Your task to perform on an android device: Open Google Chrome and open the bookmarks view Image 0: 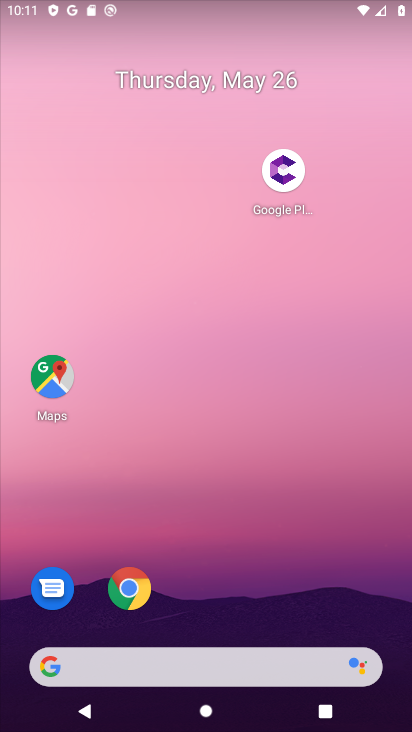
Step 0: drag from (255, 682) to (163, 76)
Your task to perform on an android device: Open Google Chrome and open the bookmarks view Image 1: 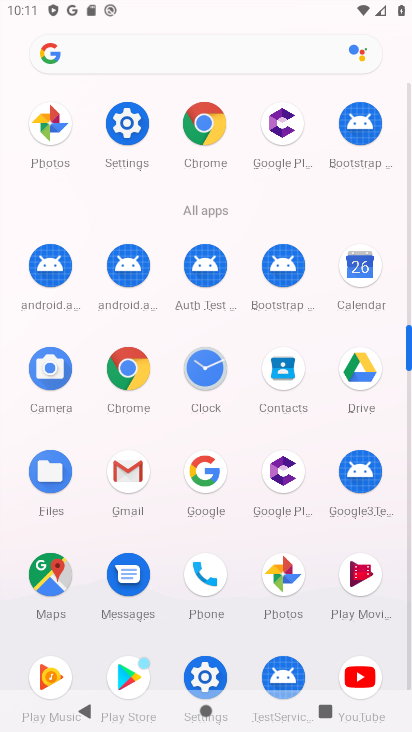
Step 1: click (215, 130)
Your task to perform on an android device: Open Google Chrome and open the bookmarks view Image 2: 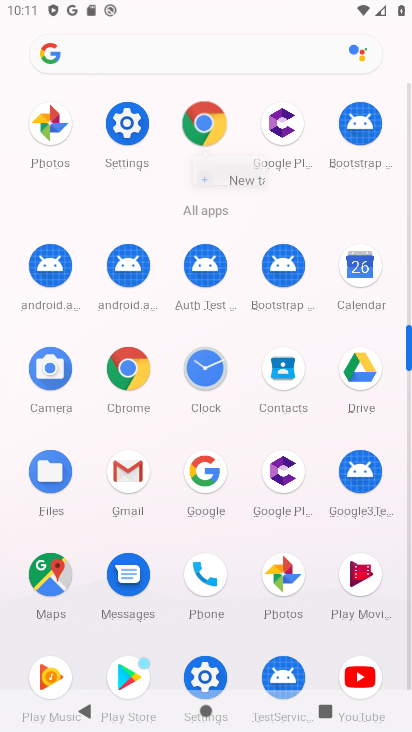
Step 2: click (202, 120)
Your task to perform on an android device: Open Google Chrome and open the bookmarks view Image 3: 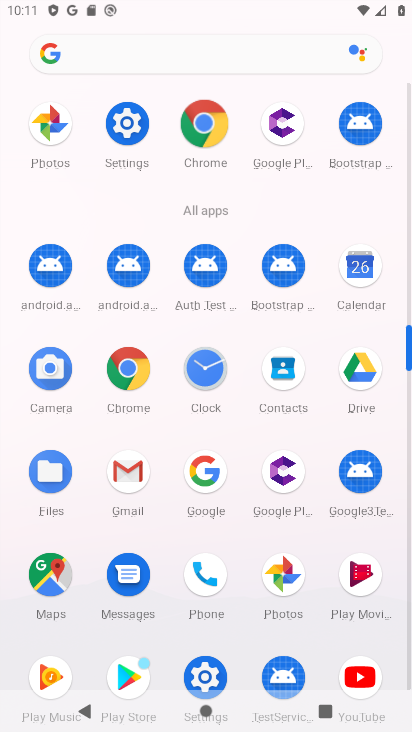
Step 3: click (210, 118)
Your task to perform on an android device: Open Google Chrome and open the bookmarks view Image 4: 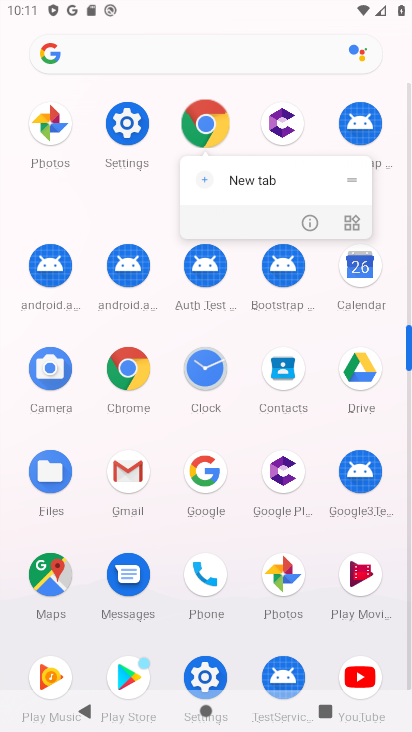
Step 4: click (210, 118)
Your task to perform on an android device: Open Google Chrome and open the bookmarks view Image 5: 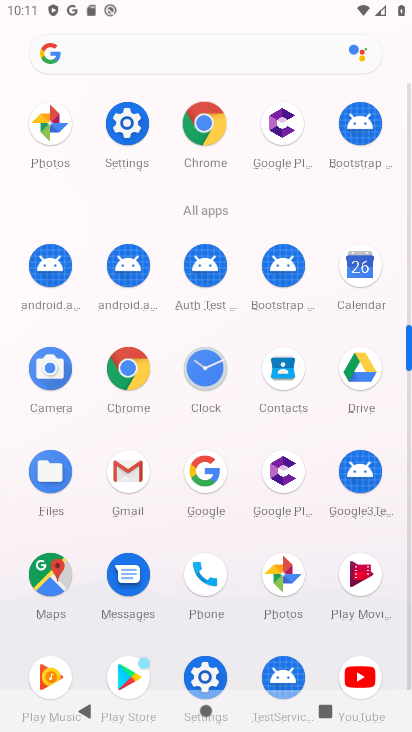
Step 5: click (210, 118)
Your task to perform on an android device: Open Google Chrome and open the bookmarks view Image 6: 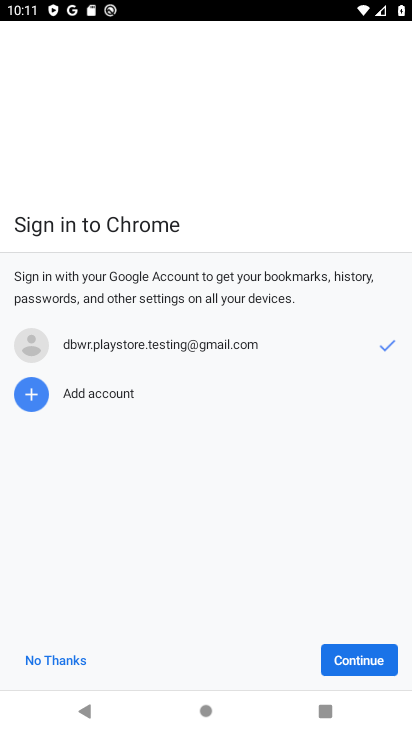
Step 6: click (363, 668)
Your task to perform on an android device: Open Google Chrome and open the bookmarks view Image 7: 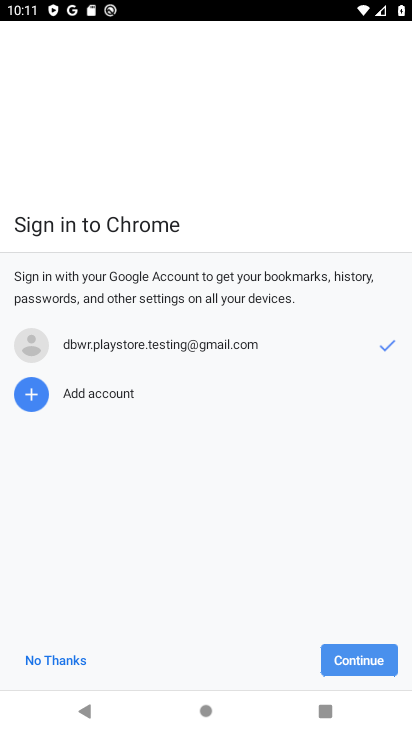
Step 7: click (363, 668)
Your task to perform on an android device: Open Google Chrome and open the bookmarks view Image 8: 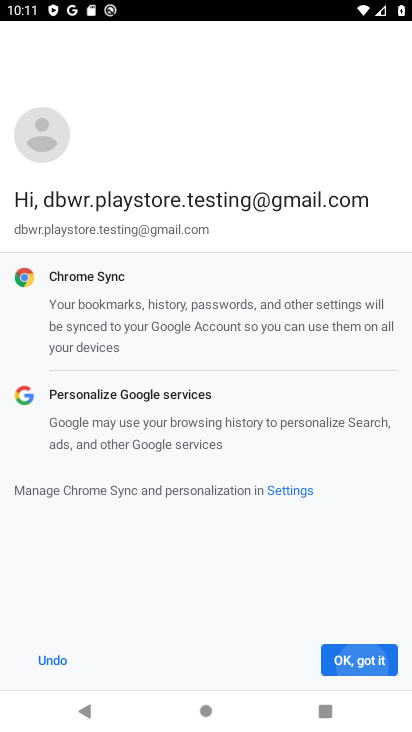
Step 8: click (363, 668)
Your task to perform on an android device: Open Google Chrome and open the bookmarks view Image 9: 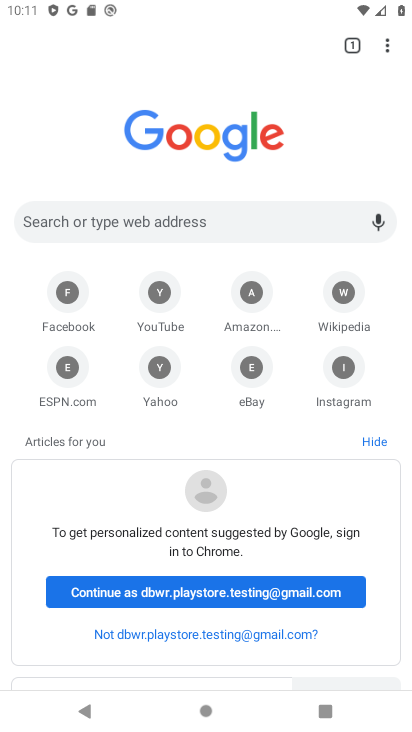
Step 9: drag from (383, 39) to (242, 168)
Your task to perform on an android device: Open Google Chrome and open the bookmarks view Image 10: 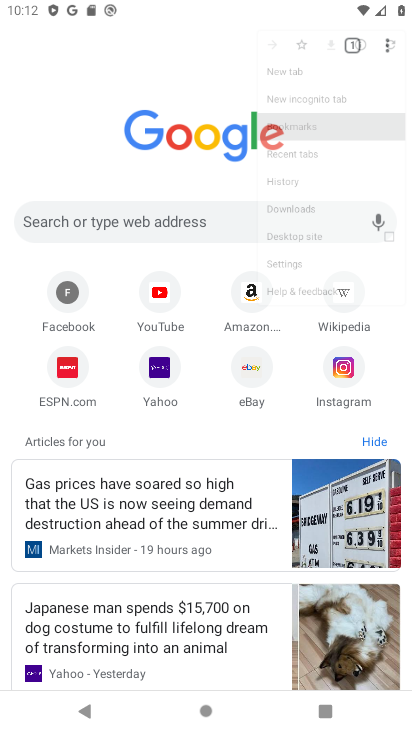
Step 10: click (246, 170)
Your task to perform on an android device: Open Google Chrome and open the bookmarks view Image 11: 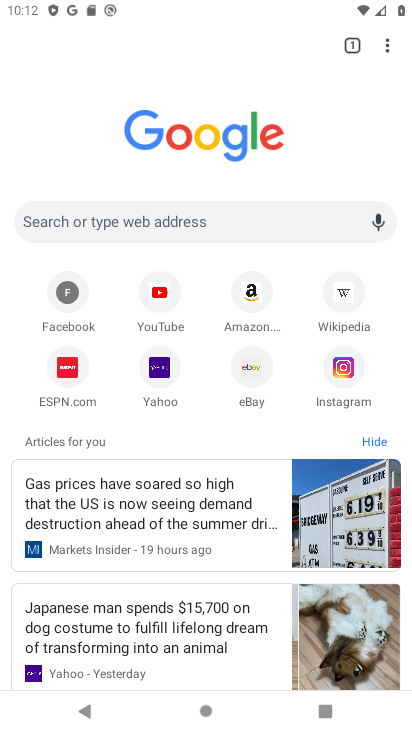
Step 11: click (251, 169)
Your task to perform on an android device: Open Google Chrome and open the bookmarks view Image 12: 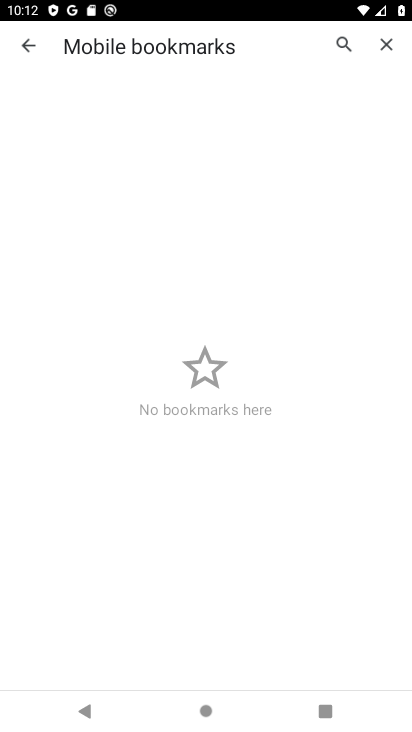
Step 12: task complete